Your task to perform on an android device: toggle javascript in the chrome app Image 0: 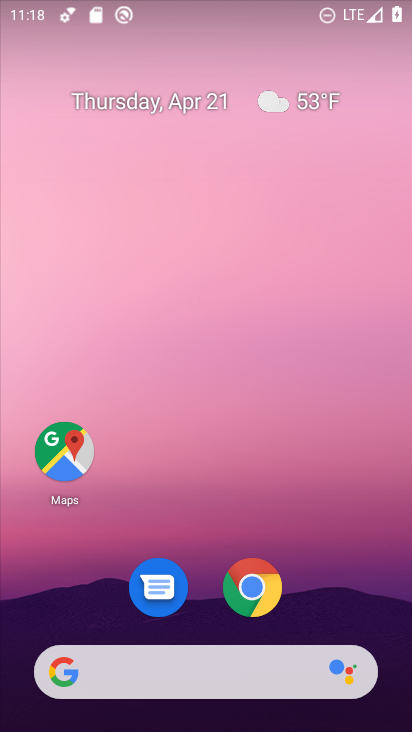
Step 0: click (267, 587)
Your task to perform on an android device: toggle javascript in the chrome app Image 1: 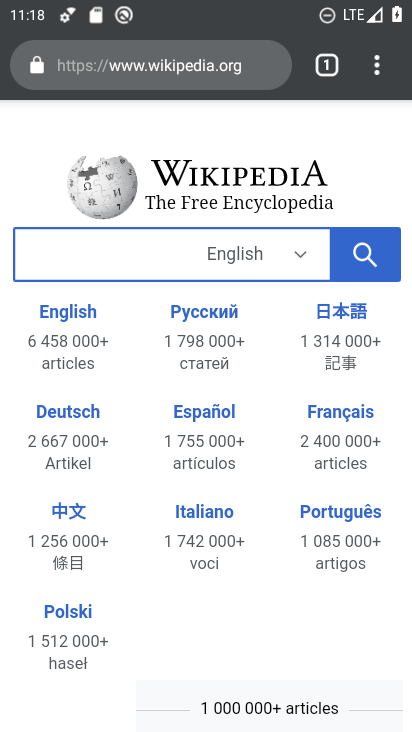
Step 1: drag from (374, 66) to (132, 637)
Your task to perform on an android device: toggle javascript in the chrome app Image 2: 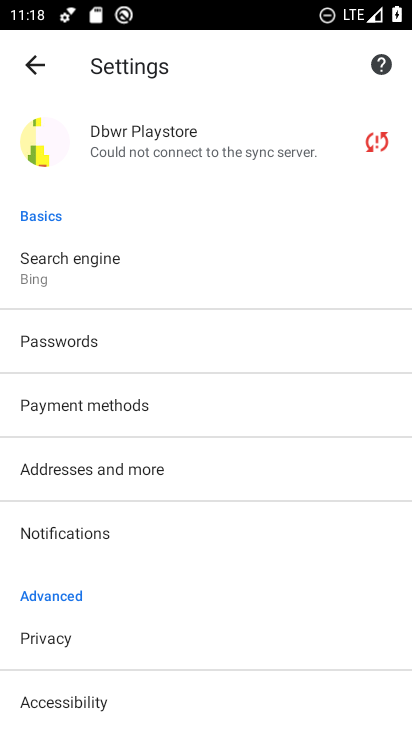
Step 2: drag from (147, 613) to (108, 210)
Your task to perform on an android device: toggle javascript in the chrome app Image 3: 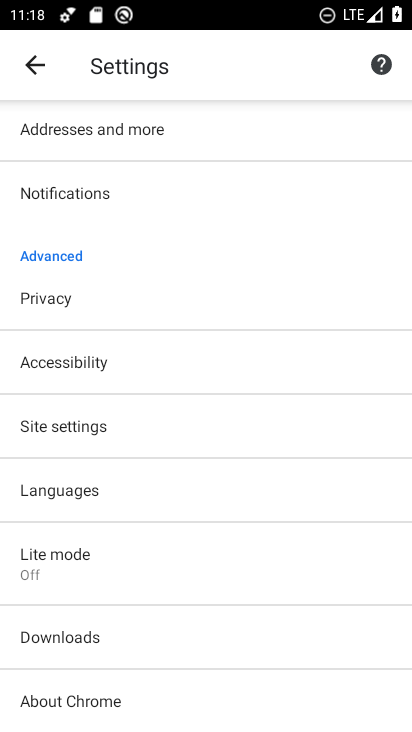
Step 3: click (87, 425)
Your task to perform on an android device: toggle javascript in the chrome app Image 4: 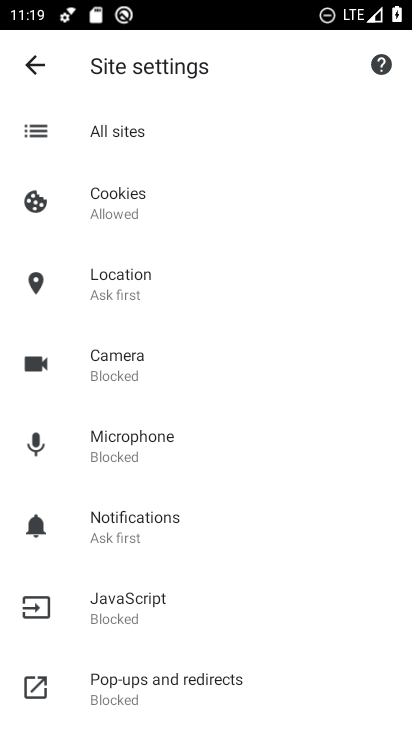
Step 4: click (120, 619)
Your task to perform on an android device: toggle javascript in the chrome app Image 5: 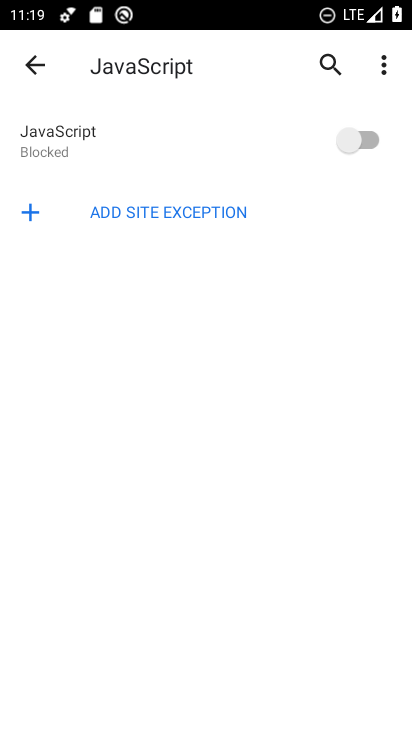
Step 5: click (363, 140)
Your task to perform on an android device: toggle javascript in the chrome app Image 6: 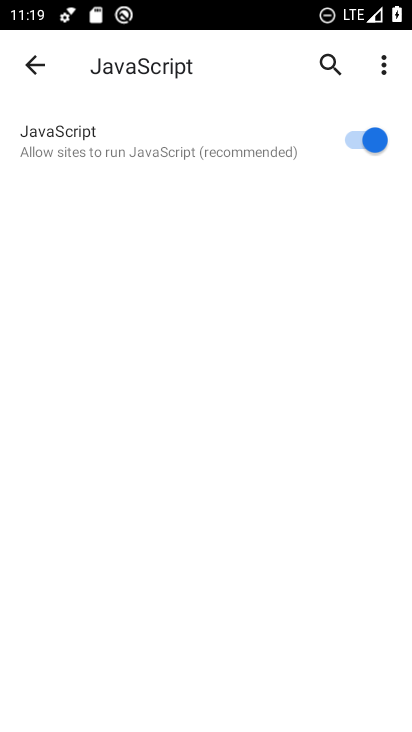
Step 6: task complete